Your task to perform on an android device: turn on location history Image 0: 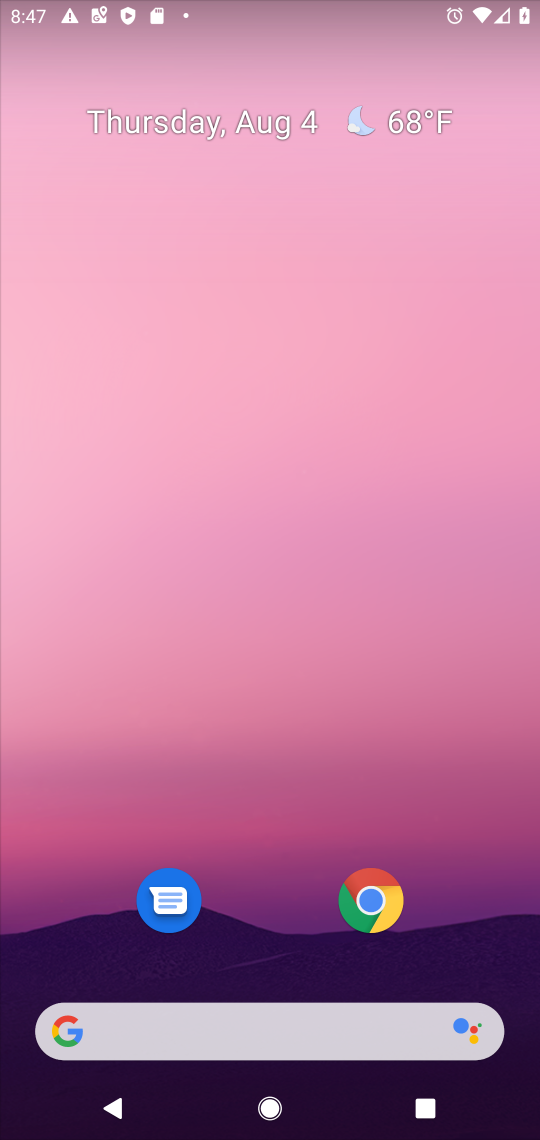
Step 0: drag from (234, 1040) to (263, 120)
Your task to perform on an android device: turn on location history Image 1: 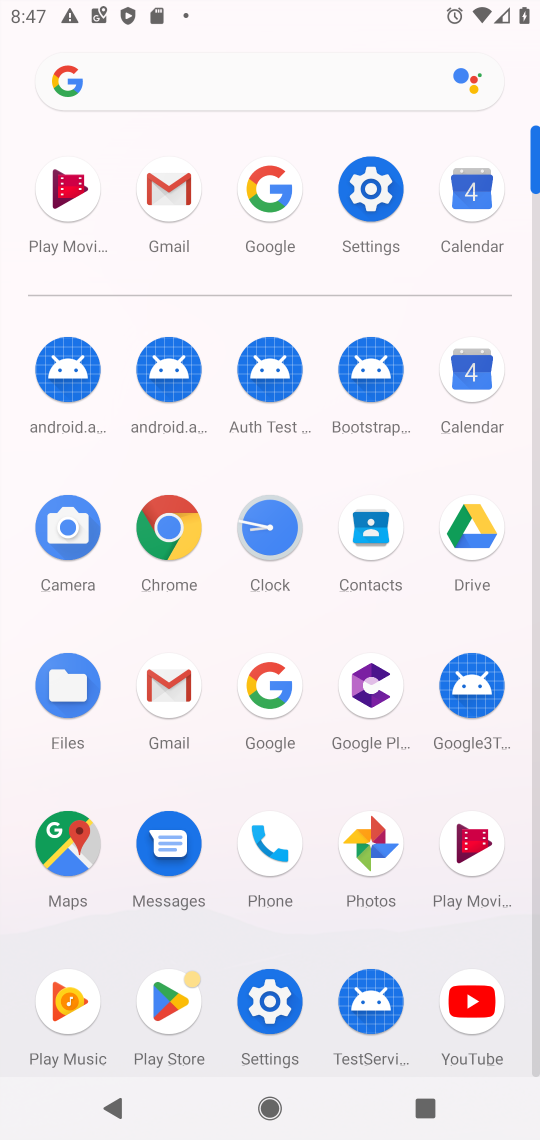
Step 1: click (372, 188)
Your task to perform on an android device: turn on location history Image 2: 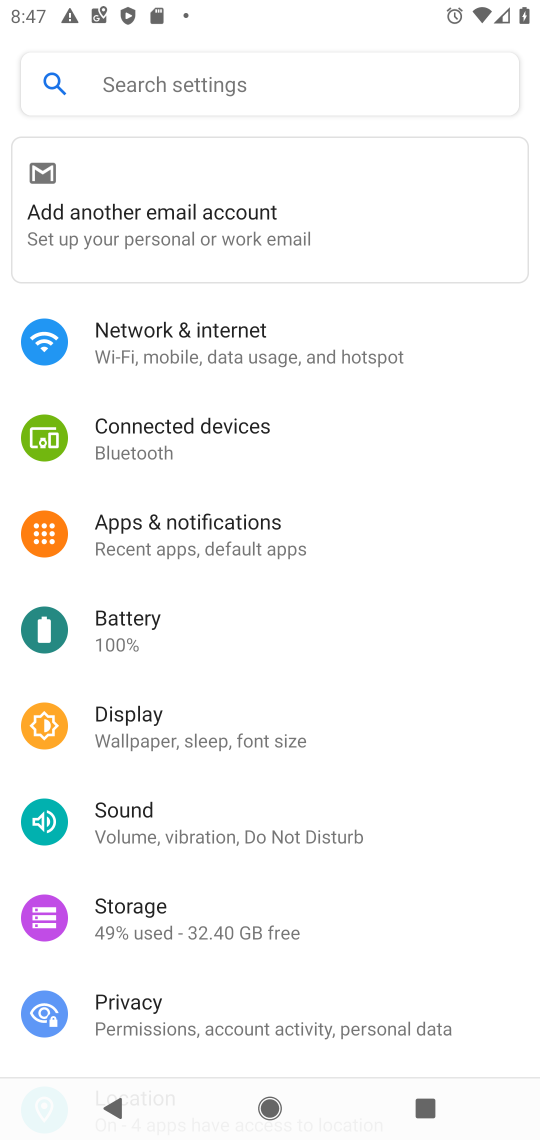
Step 2: drag from (191, 1011) to (267, 684)
Your task to perform on an android device: turn on location history Image 3: 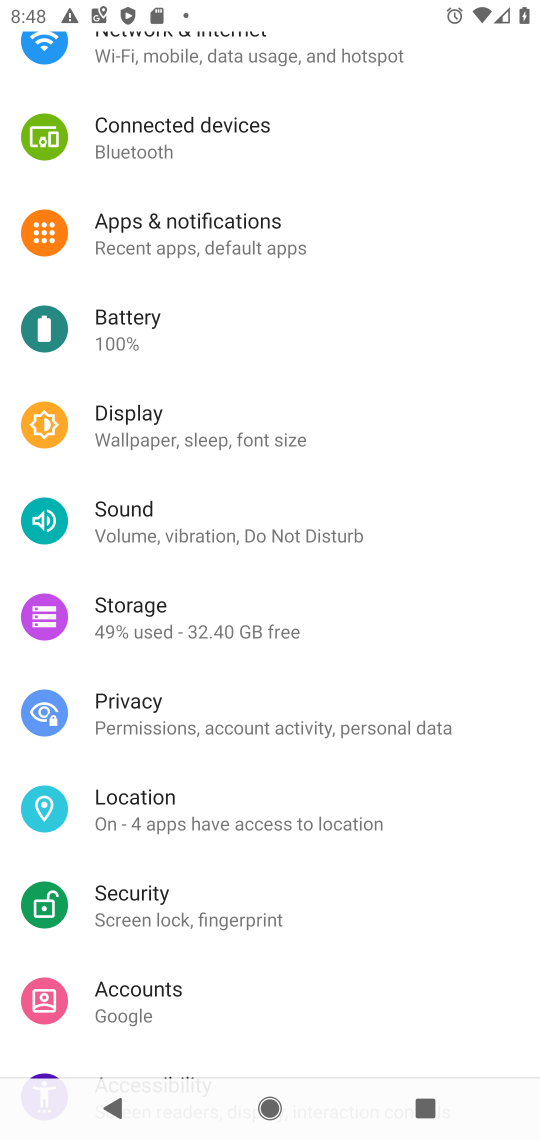
Step 3: click (217, 811)
Your task to perform on an android device: turn on location history Image 4: 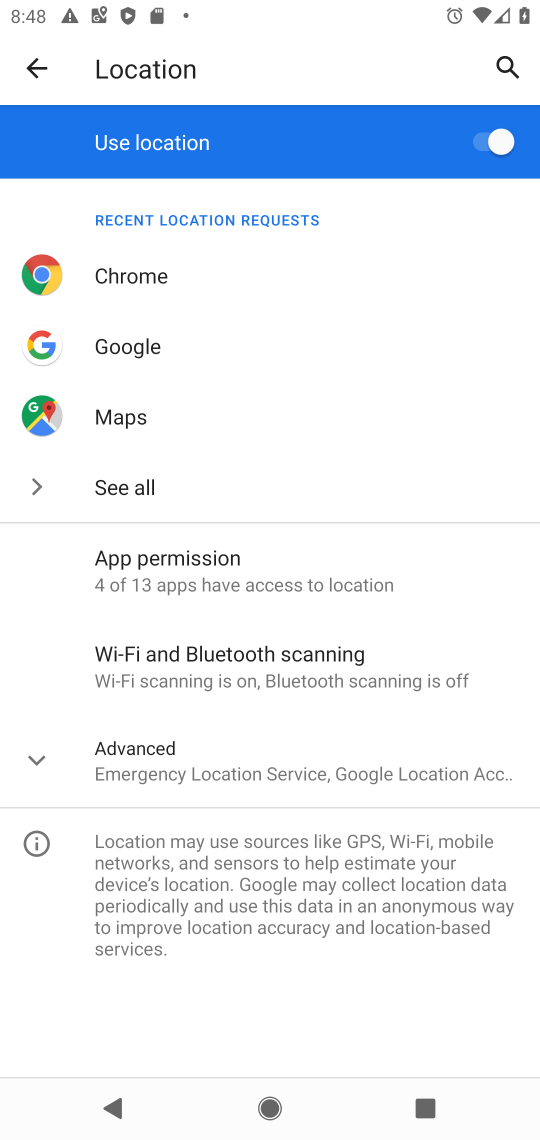
Step 4: click (208, 770)
Your task to perform on an android device: turn on location history Image 5: 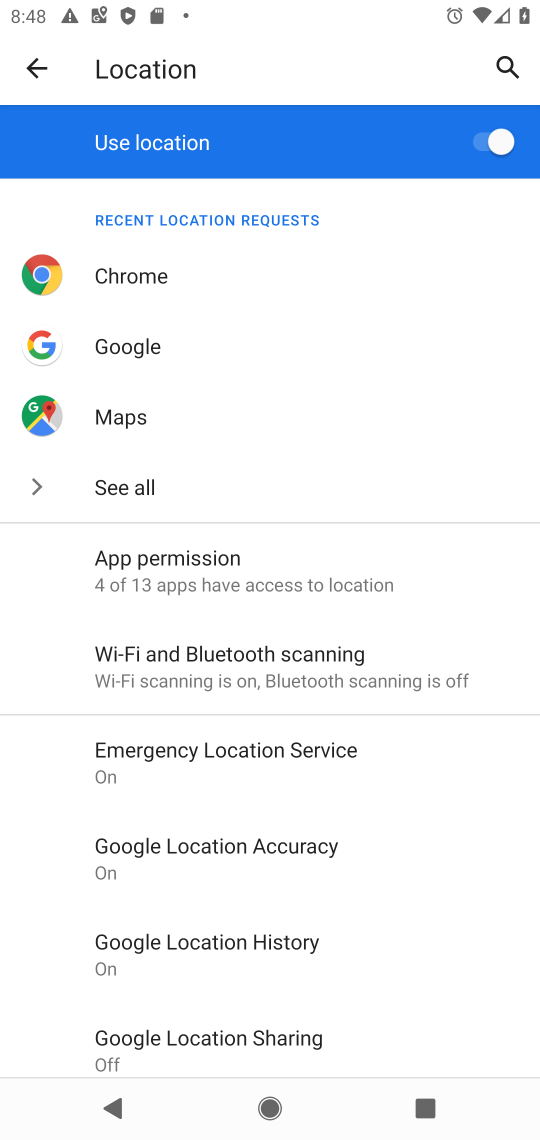
Step 5: task complete